Your task to perform on an android device: snooze an email in the gmail app Image 0: 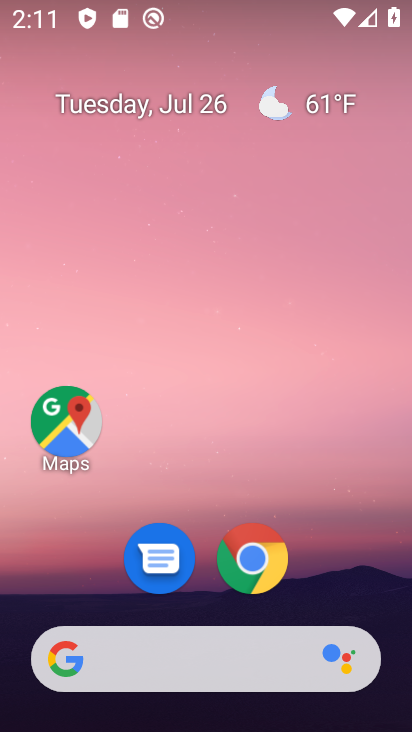
Step 0: drag from (103, 616) to (311, 26)
Your task to perform on an android device: snooze an email in the gmail app Image 1: 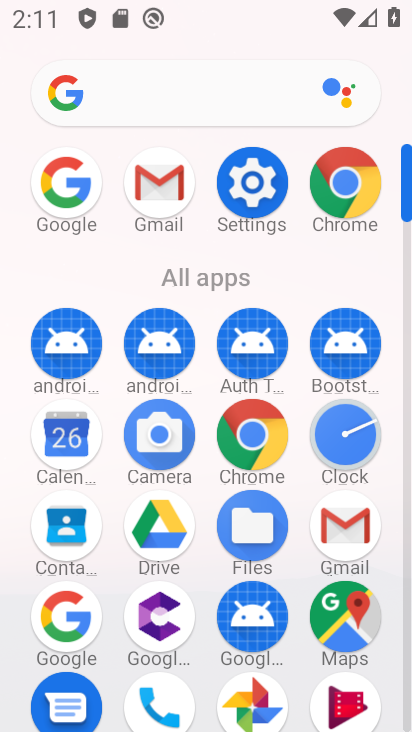
Step 1: click (161, 166)
Your task to perform on an android device: snooze an email in the gmail app Image 2: 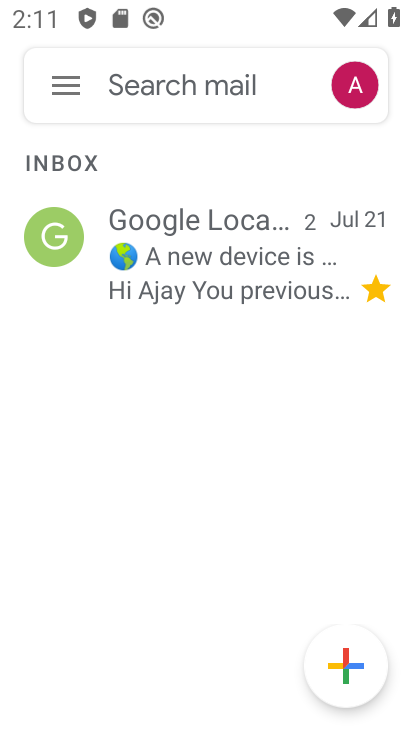
Step 2: click (202, 237)
Your task to perform on an android device: snooze an email in the gmail app Image 3: 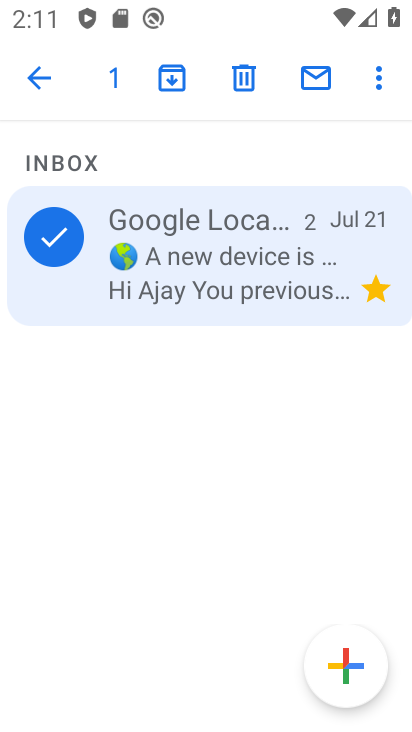
Step 3: click (375, 77)
Your task to perform on an android device: snooze an email in the gmail app Image 4: 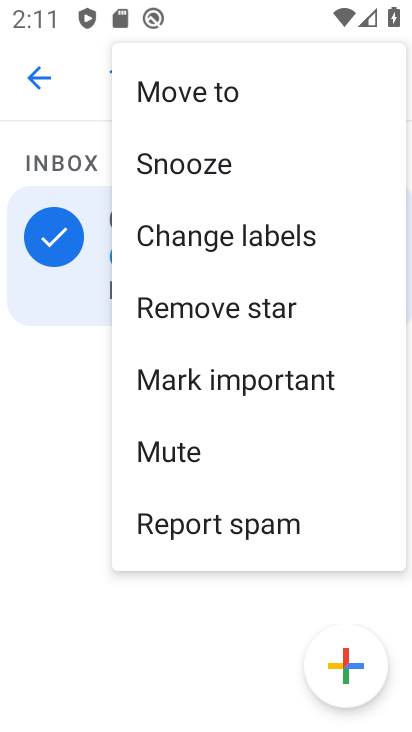
Step 4: click (229, 135)
Your task to perform on an android device: snooze an email in the gmail app Image 5: 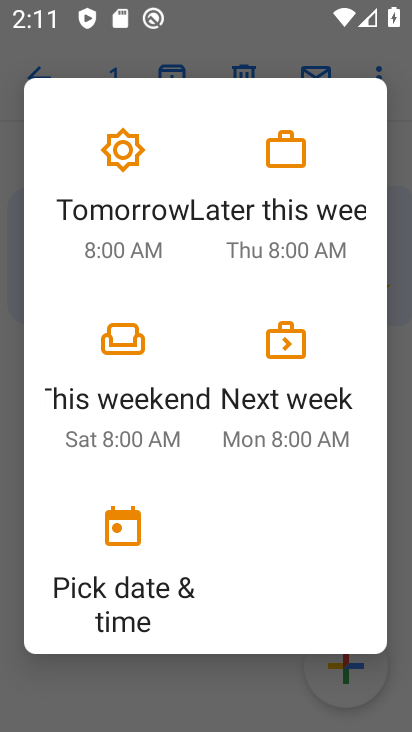
Step 5: click (124, 353)
Your task to perform on an android device: snooze an email in the gmail app Image 6: 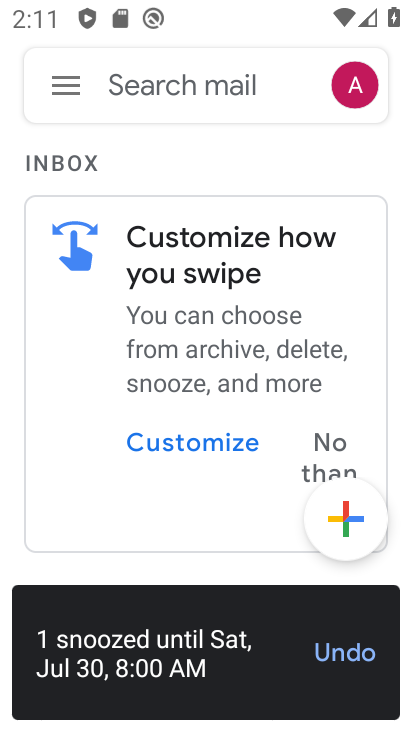
Step 6: task complete